Your task to perform on an android device: Search for the new Nintendo switch on Best Buy Image 0: 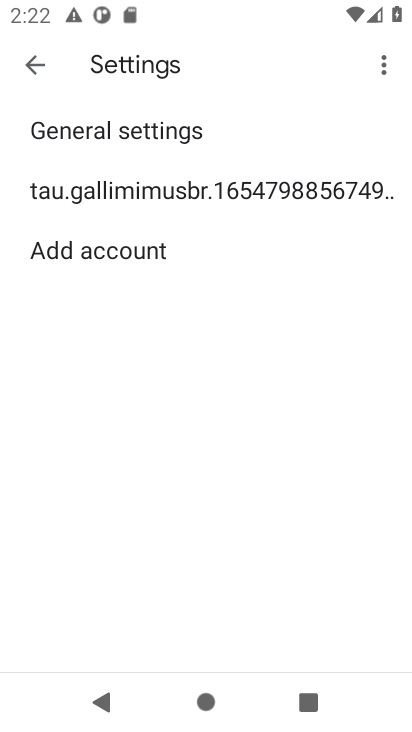
Step 0: press home button
Your task to perform on an android device: Search for the new Nintendo switch on Best Buy Image 1: 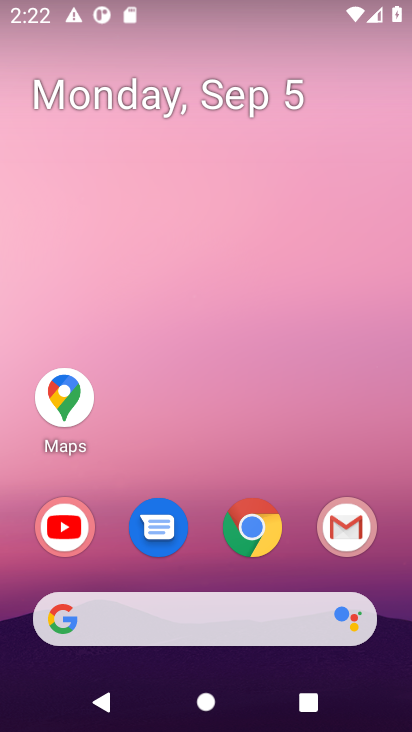
Step 1: click (260, 531)
Your task to perform on an android device: Search for the new Nintendo switch on Best Buy Image 2: 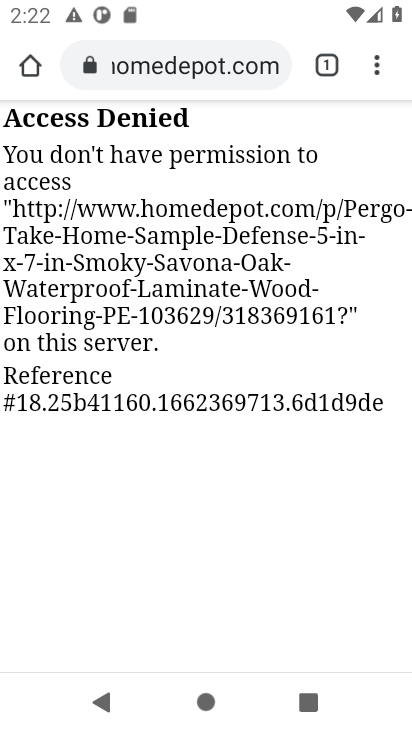
Step 2: click (217, 72)
Your task to perform on an android device: Search for the new Nintendo switch on Best Buy Image 3: 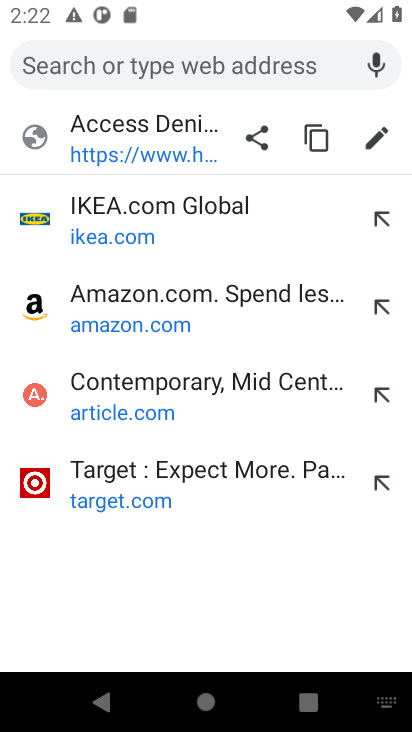
Step 3: type "Best Buy"
Your task to perform on an android device: Search for the new Nintendo switch on Best Buy Image 4: 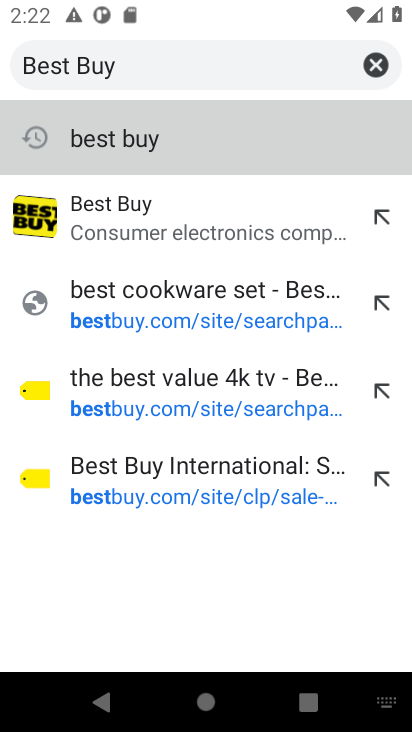
Step 4: click (142, 252)
Your task to perform on an android device: Search for the new Nintendo switch on Best Buy Image 5: 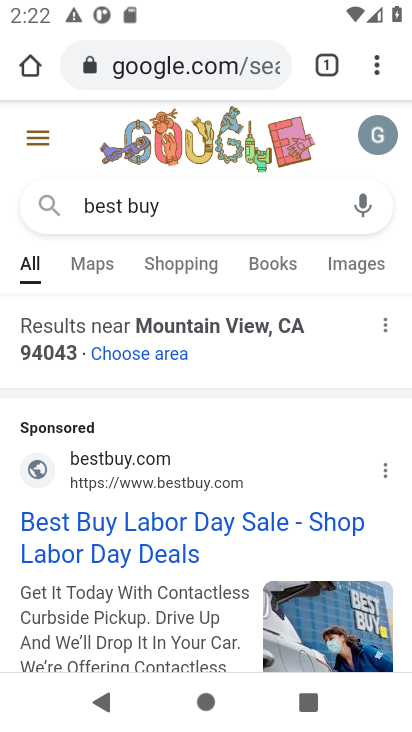
Step 5: click (154, 518)
Your task to perform on an android device: Search for the new Nintendo switch on Best Buy Image 6: 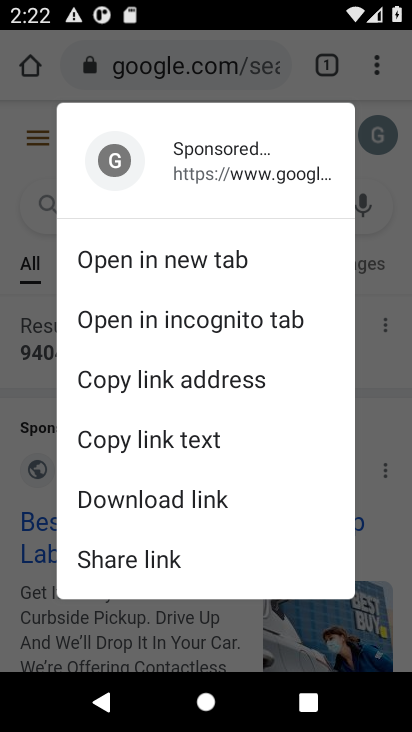
Step 6: click (28, 532)
Your task to perform on an android device: Search for the new Nintendo switch on Best Buy Image 7: 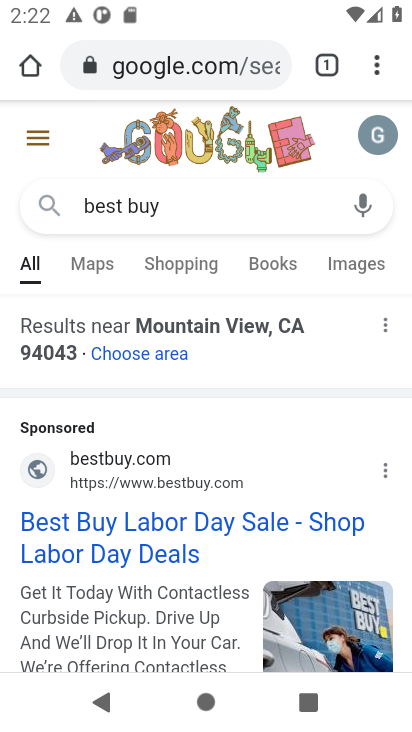
Step 7: click (66, 526)
Your task to perform on an android device: Search for the new Nintendo switch on Best Buy Image 8: 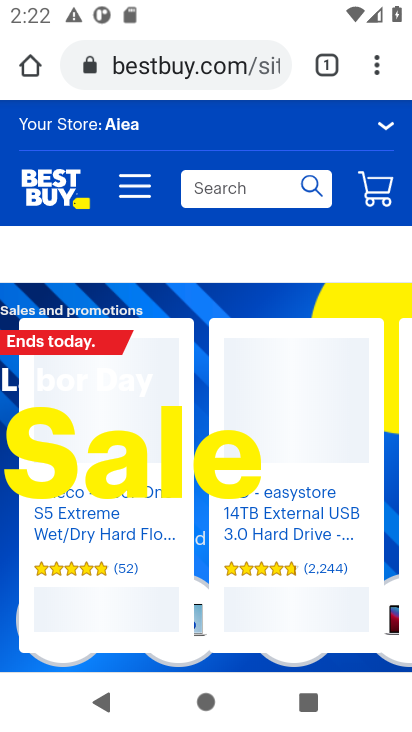
Step 8: click (213, 189)
Your task to perform on an android device: Search for the new Nintendo switch on Best Buy Image 9: 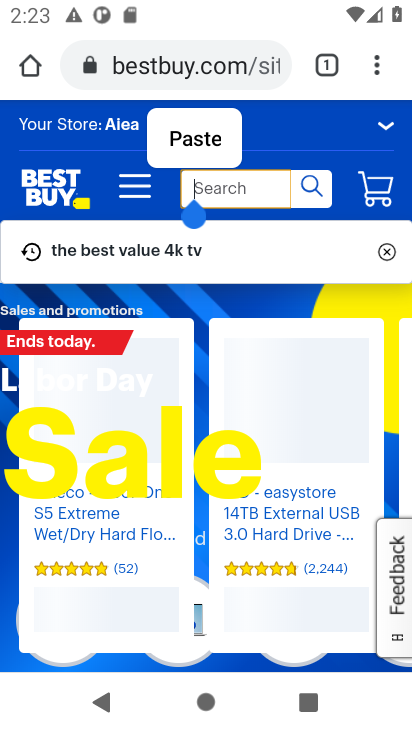
Step 9: type "the new Nintendo switch"
Your task to perform on an android device: Search for the new Nintendo switch on Best Buy Image 10: 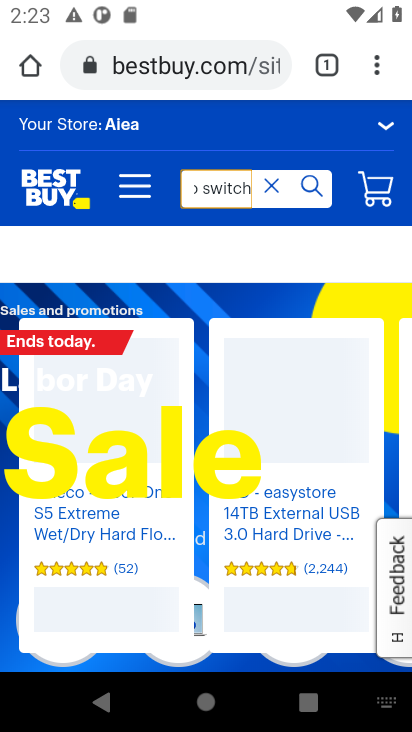
Step 10: click (316, 177)
Your task to perform on an android device: Search for the new Nintendo switch on Best Buy Image 11: 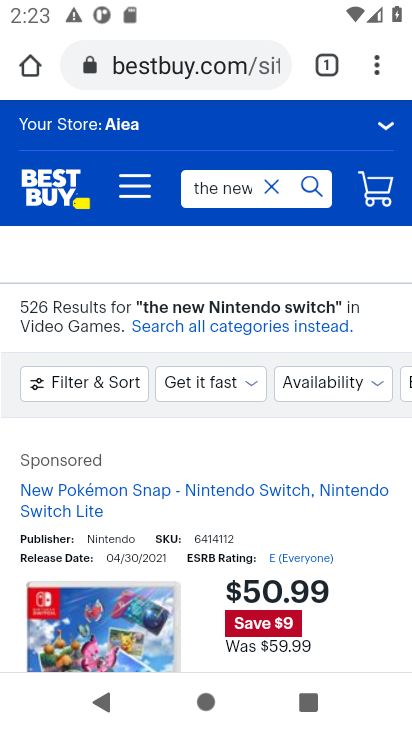
Step 11: click (305, 185)
Your task to perform on an android device: Search for the new Nintendo switch on Best Buy Image 12: 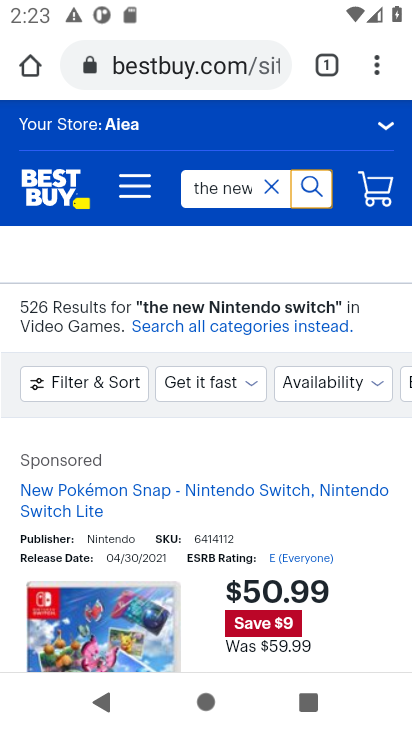
Step 12: task complete